Your task to perform on an android device: check data usage Image 0: 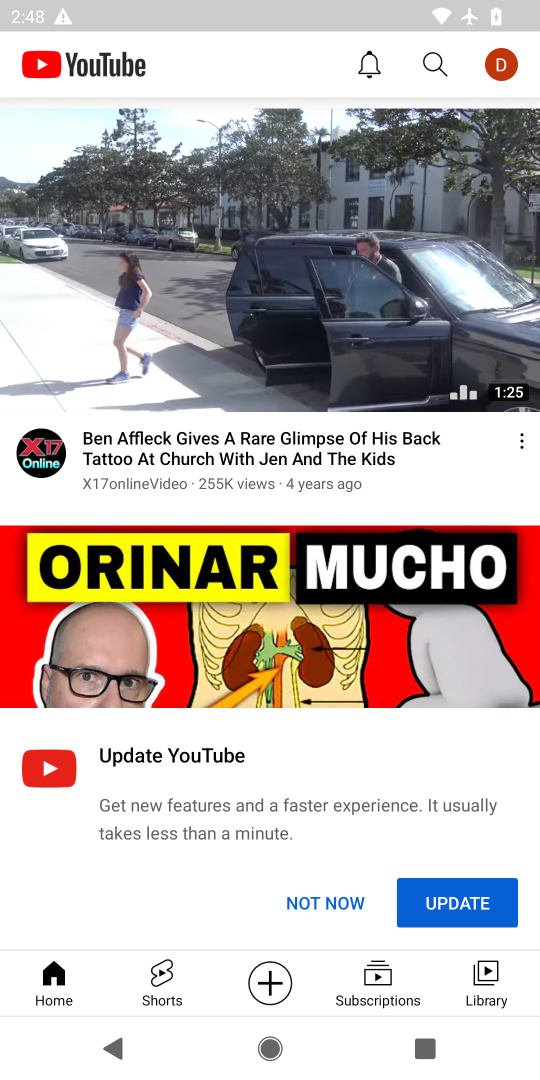
Step 0: press home button
Your task to perform on an android device: check data usage Image 1: 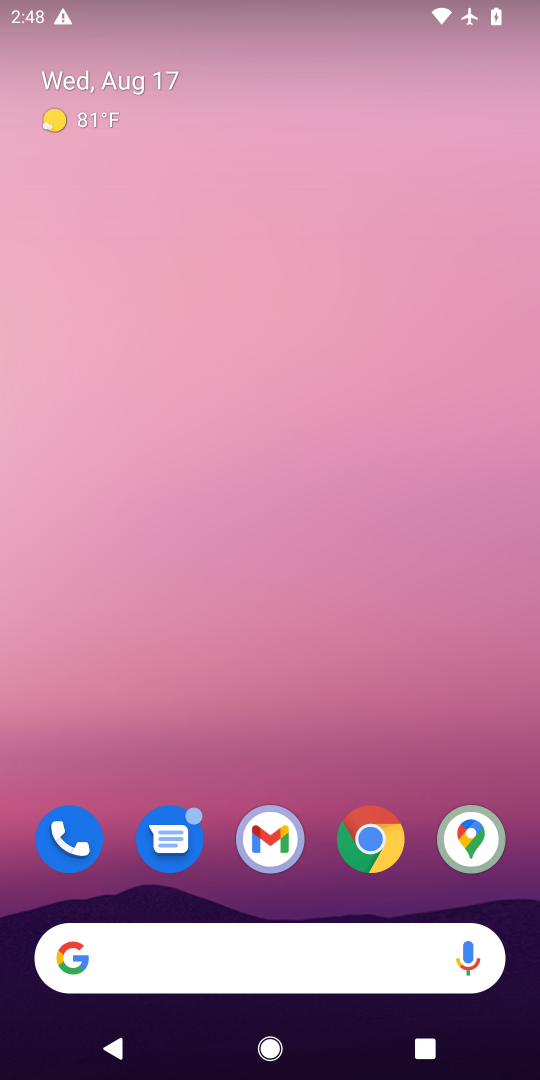
Step 1: drag from (319, 797) to (280, 81)
Your task to perform on an android device: check data usage Image 2: 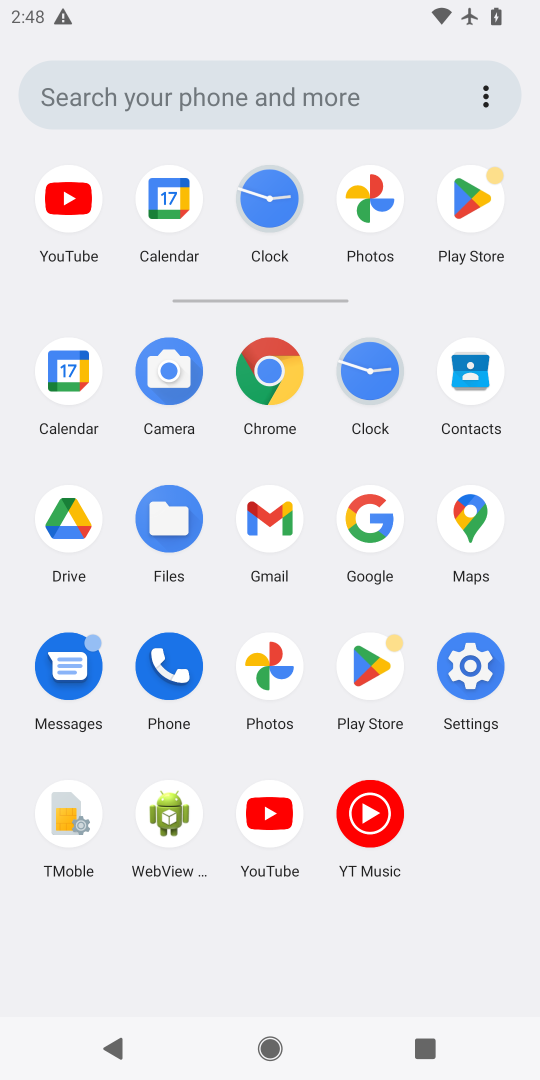
Step 2: click (474, 662)
Your task to perform on an android device: check data usage Image 3: 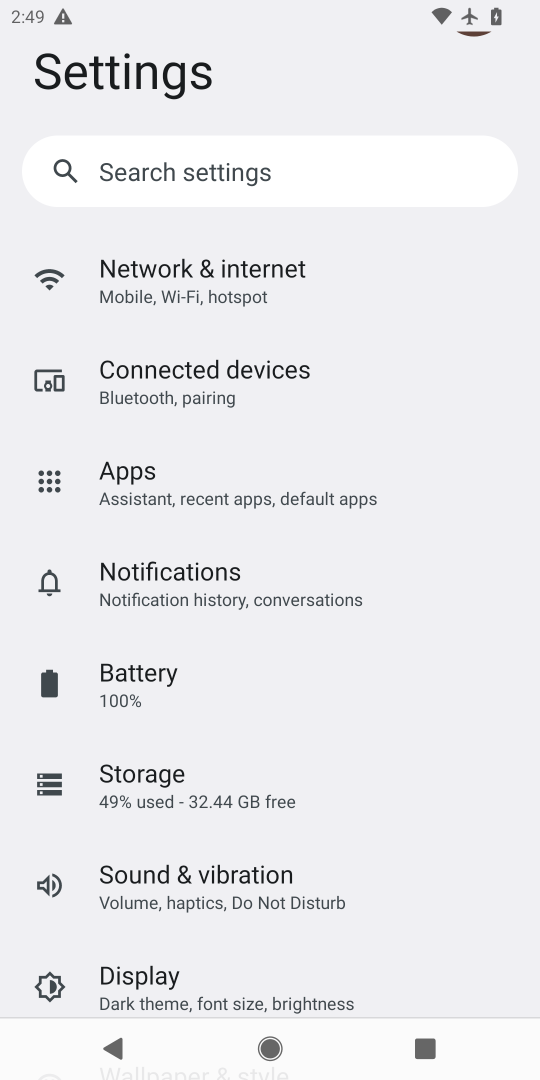
Step 3: click (156, 278)
Your task to perform on an android device: check data usage Image 4: 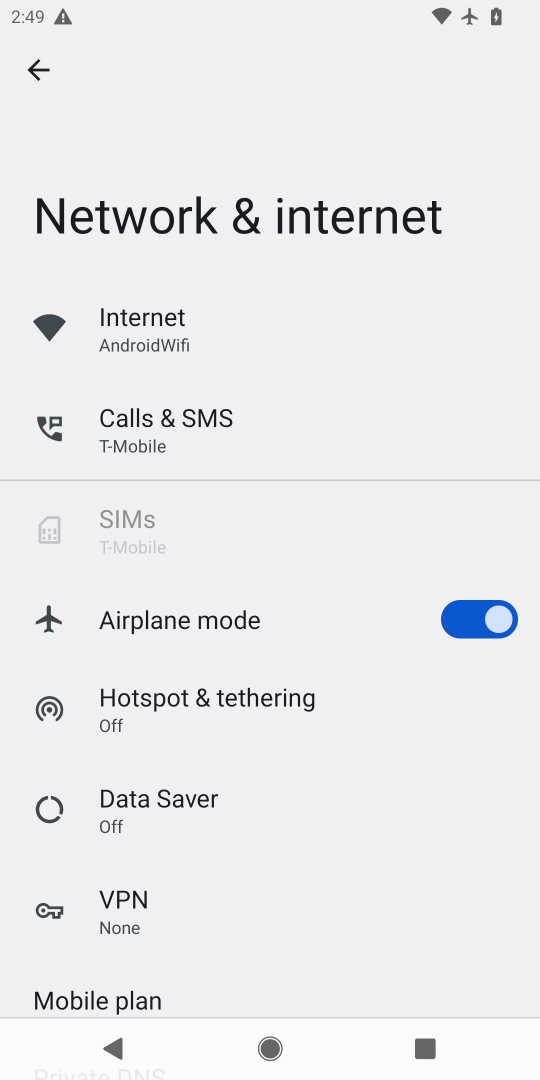
Step 4: click (145, 327)
Your task to perform on an android device: check data usage Image 5: 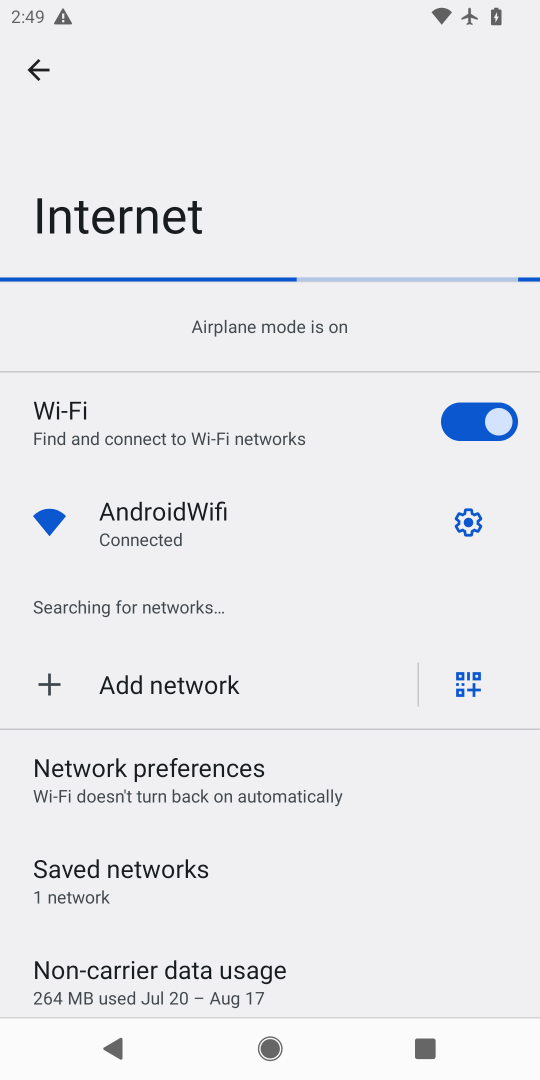
Step 5: click (93, 968)
Your task to perform on an android device: check data usage Image 6: 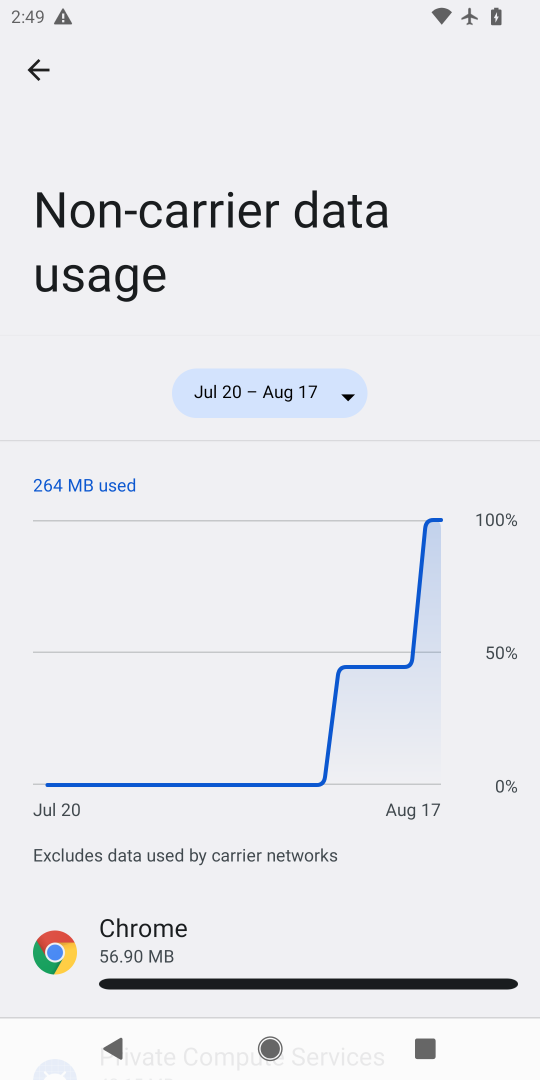
Step 6: task complete